Your task to perform on an android device: Open Amazon Image 0: 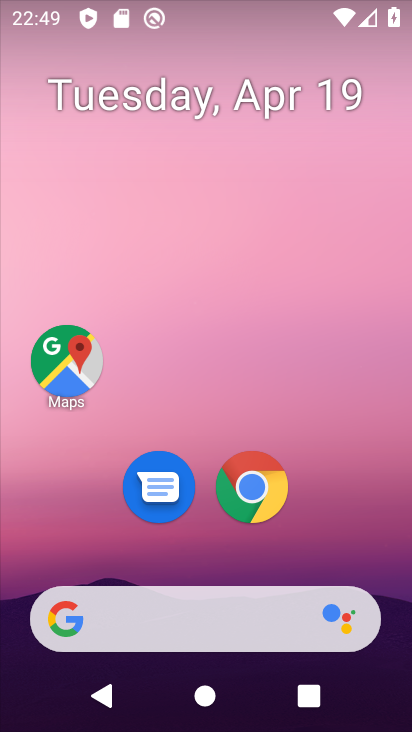
Step 0: click (228, 490)
Your task to perform on an android device: Open Amazon Image 1: 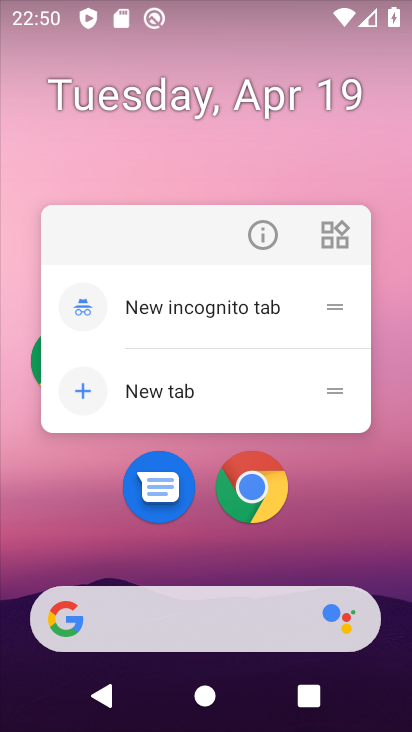
Step 1: click (249, 485)
Your task to perform on an android device: Open Amazon Image 2: 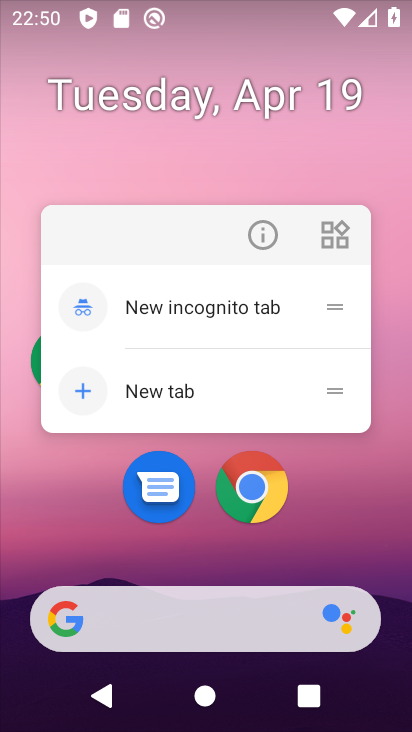
Step 2: click (251, 498)
Your task to perform on an android device: Open Amazon Image 3: 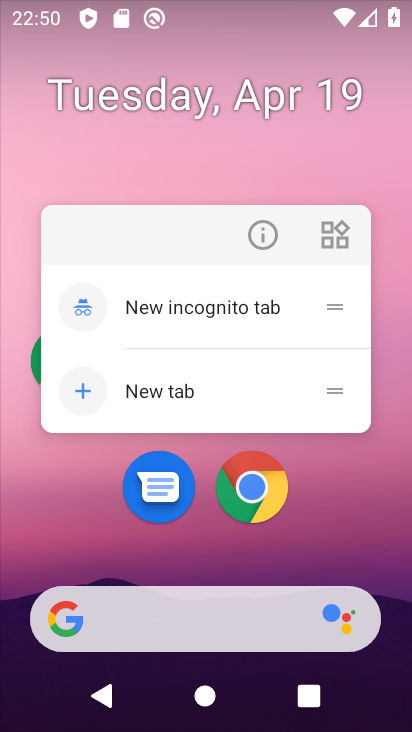
Step 3: click (251, 498)
Your task to perform on an android device: Open Amazon Image 4: 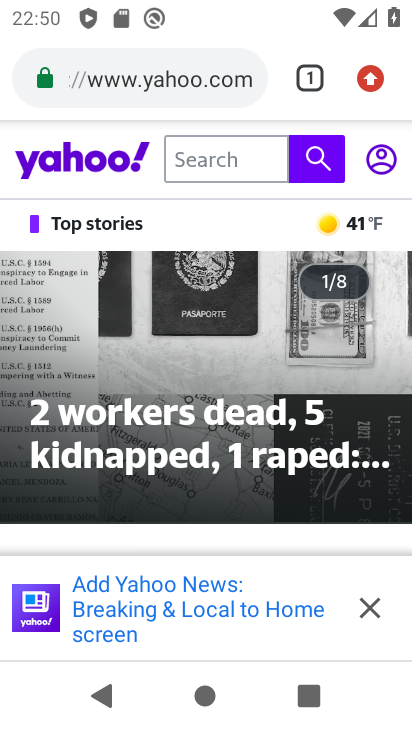
Step 4: press back button
Your task to perform on an android device: Open Amazon Image 5: 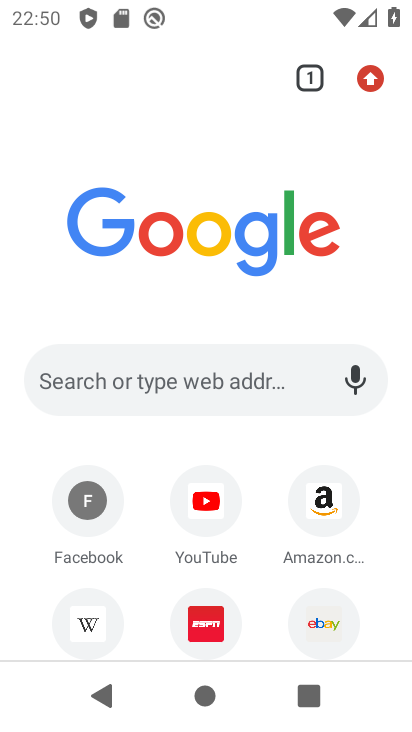
Step 5: click (322, 493)
Your task to perform on an android device: Open Amazon Image 6: 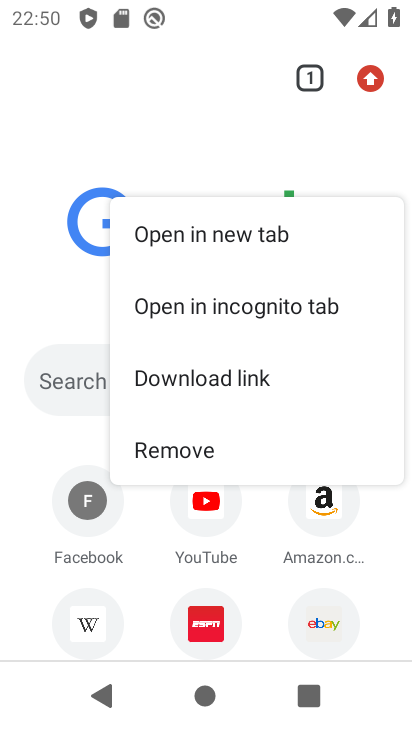
Step 6: click (329, 516)
Your task to perform on an android device: Open Amazon Image 7: 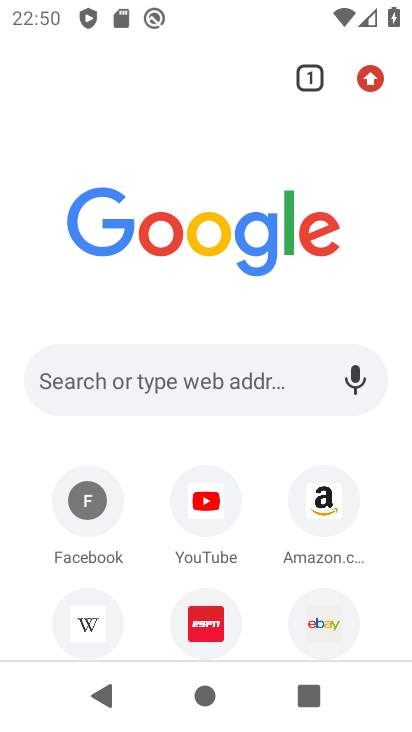
Step 7: click (329, 504)
Your task to perform on an android device: Open Amazon Image 8: 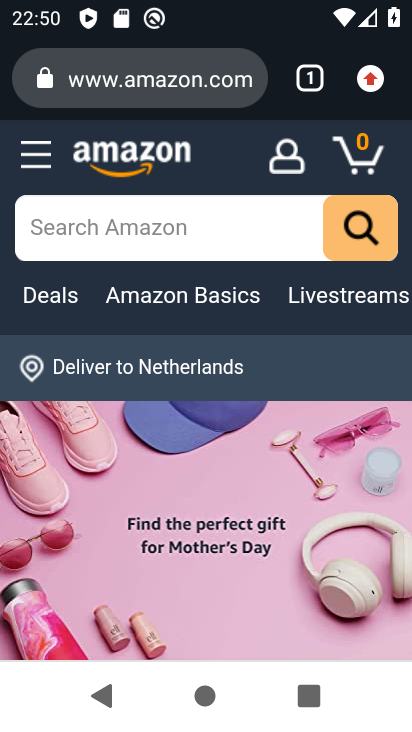
Step 8: task complete